Your task to perform on an android device: open wifi settings Image 0: 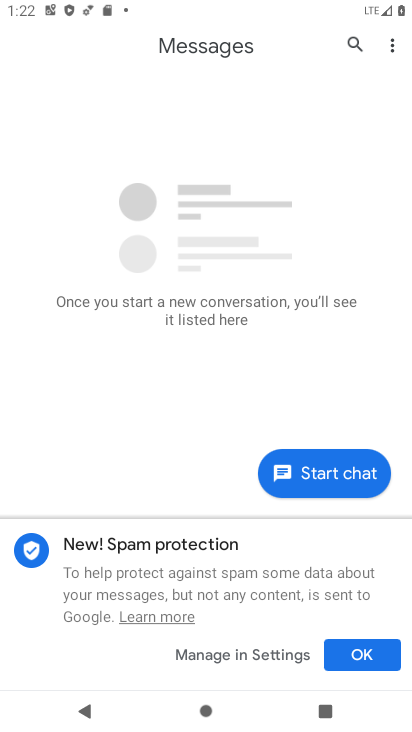
Step 0: press back button
Your task to perform on an android device: open wifi settings Image 1: 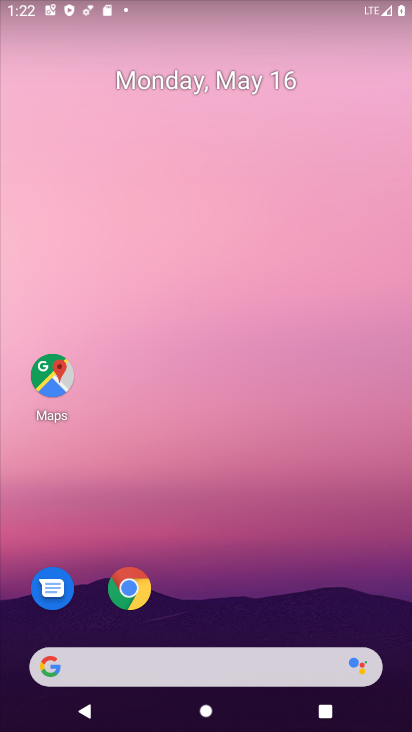
Step 1: drag from (213, 561) to (203, 208)
Your task to perform on an android device: open wifi settings Image 2: 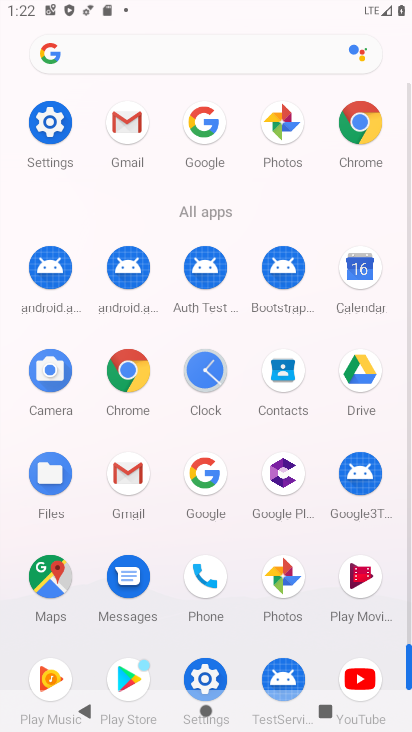
Step 2: click (49, 120)
Your task to perform on an android device: open wifi settings Image 3: 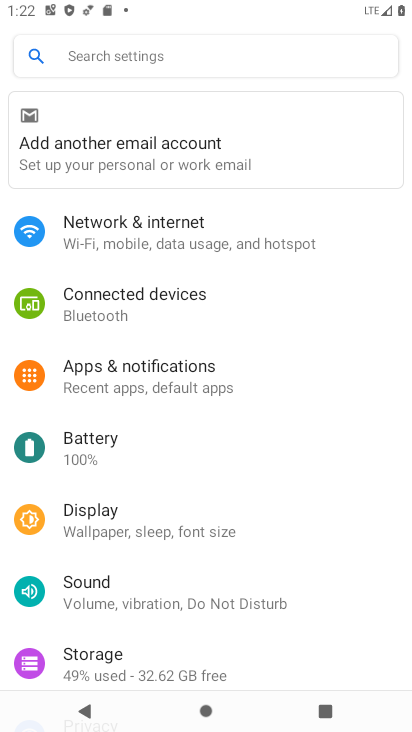
Step 3: click (169, 230)
Your task to perform on an android device: open wifi settings Image 4: 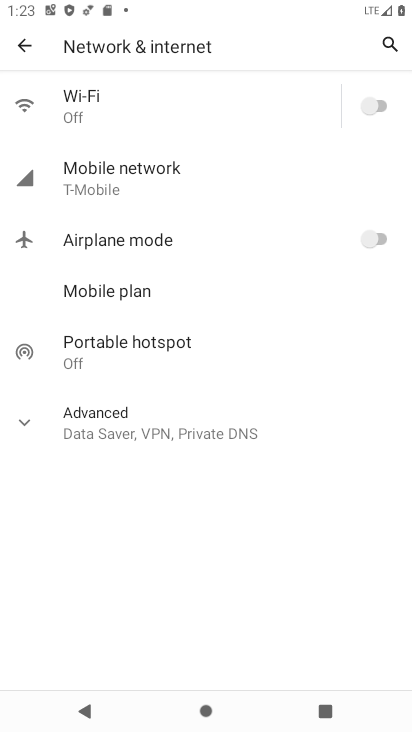
Step 4: click (89, 108)
Your task to perform on an android device: open wifi settings Image 5: 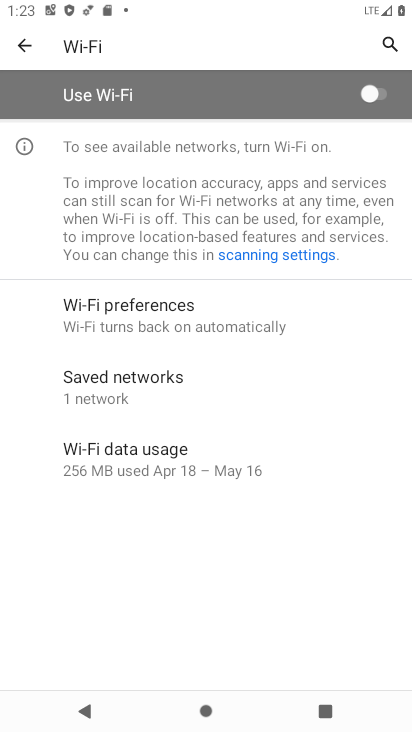
Step 5: task complete